Your task to perform on an android device: turn notification dots on Image 0: 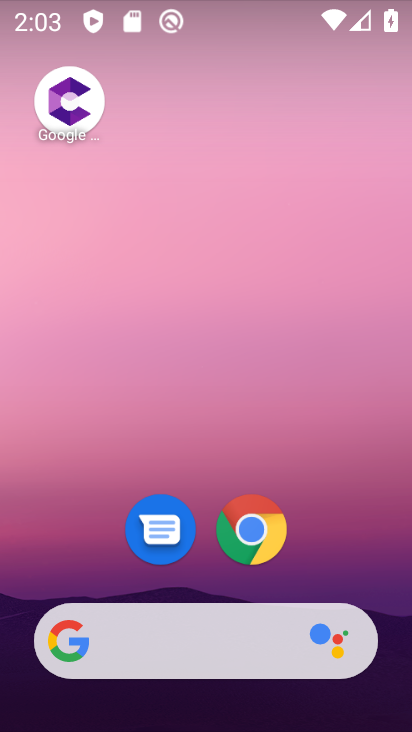
Step 0: drag from (221, 642) to (357, 167)
Your task to perform on an android device: turn notification dots on Image 1: 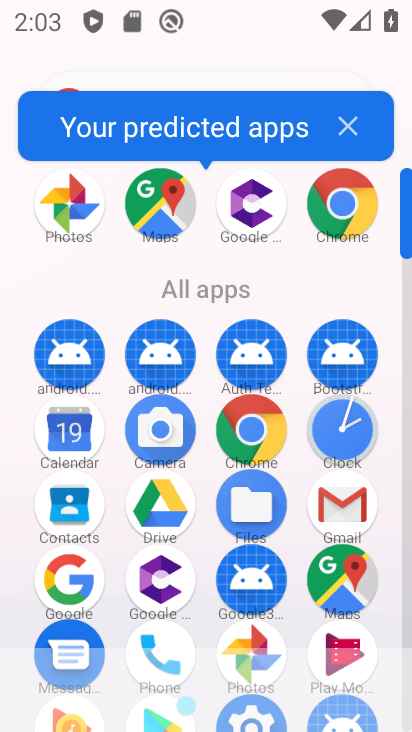
Step 1: drag from (200, 635) to (349, 210)
Your task to perform on an android device: turn notification dots on Image 2: 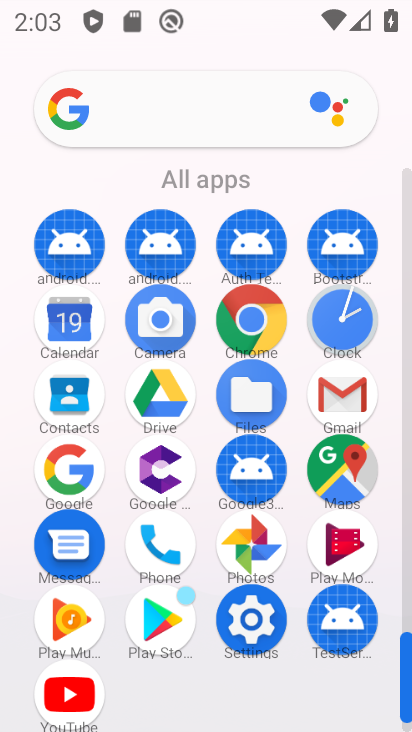
Step 2: click (250, 633)
Your task to perform on an android device: turn notification dots on Image 3: 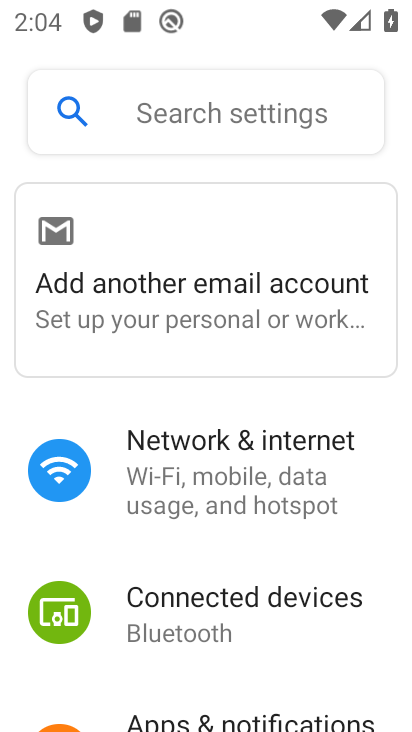
Step 3: drag from (188, 669) to (355, 247)
Your task to perform on an android device: turn notification dots on Image 4: 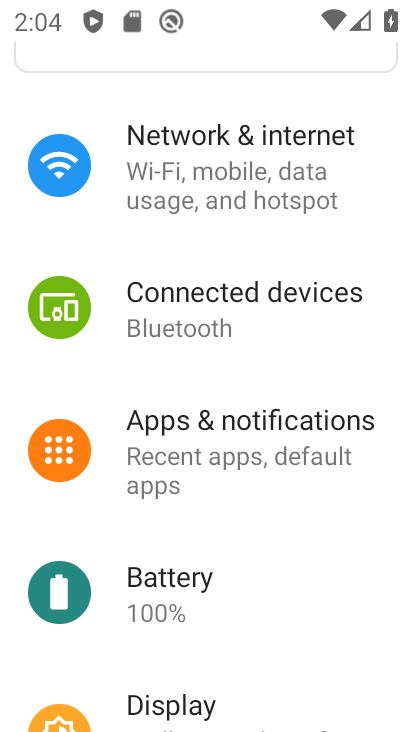
Step 4: click (273, 438)
Your task to perform on an android device: turn notification dots on Image 5: 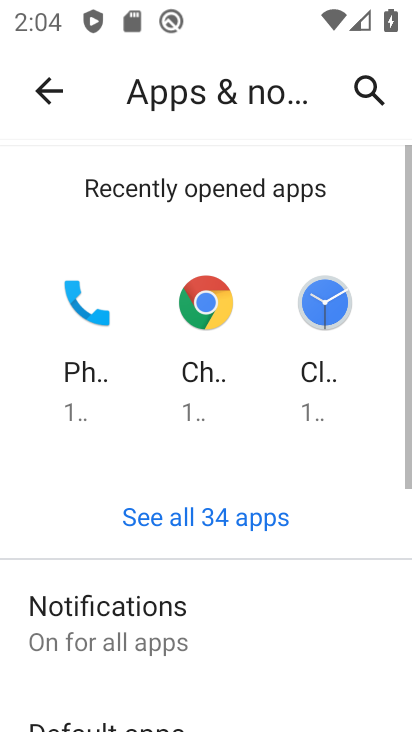
Step 5: drag from (210, 594) to (331, 287)
Your task to perform on an android device: turn notification dots on Image 6: 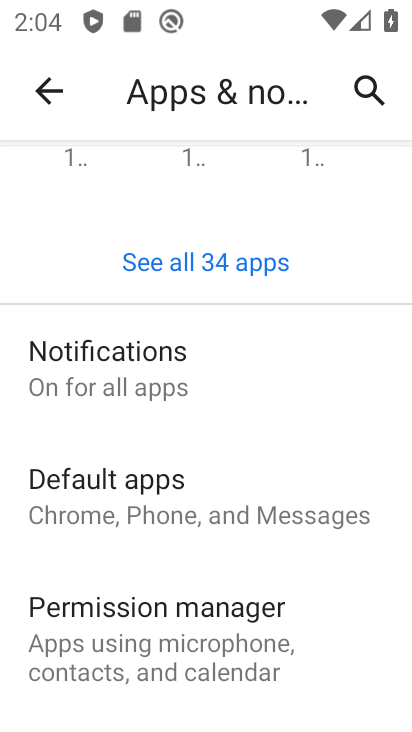
Step 6: click (167, 371)
Your task to perform on an android device: turn notification dots on Image 7: 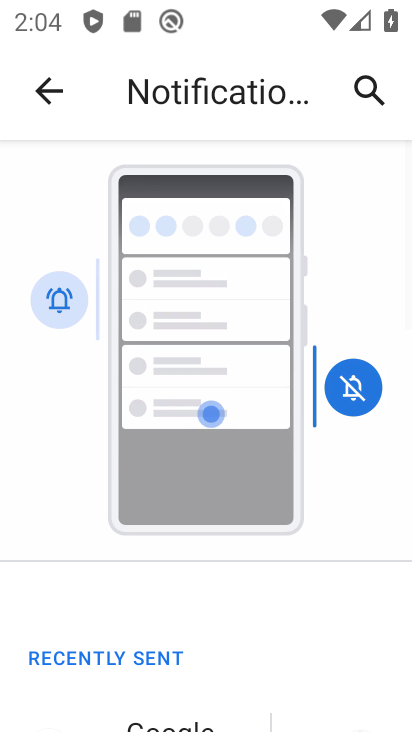
Step 7: drag from (219, 645) to (364, 113)
Your task to perform on an android device: turn notification dots on Image 8: 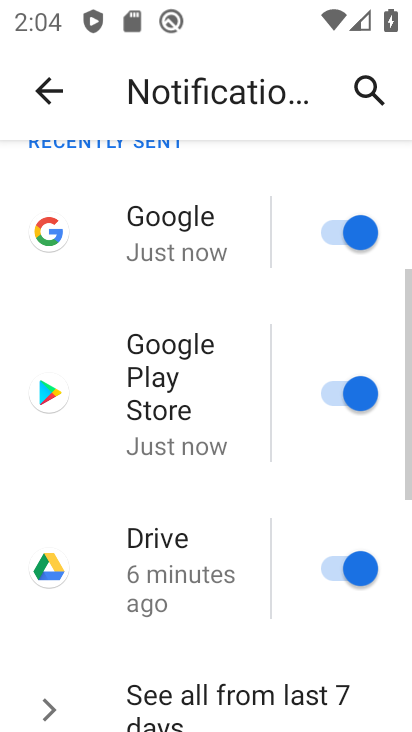
Step 8: drag from (258, 611) to (400, 109)
Your task to perform on an android device: turn notification dots on Image 9: 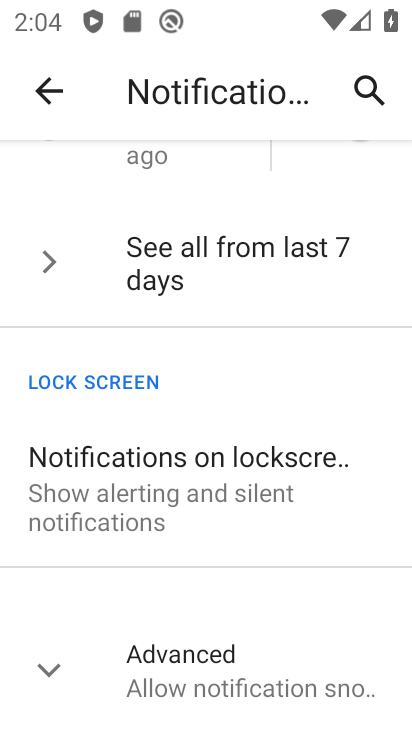
Step 9: drag from (231, 593) to (352, 220)
Your task to perform on an android device: turn notification dots on Image 10: 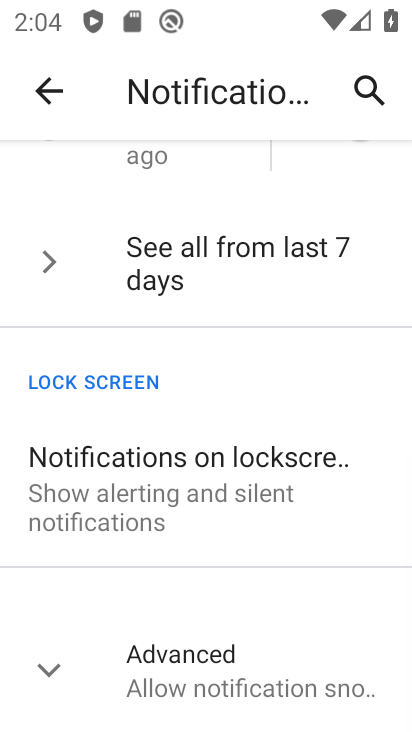
Step 10: click (177, 663)
Your task to perform on an android device: turn notification dots on Image 11: 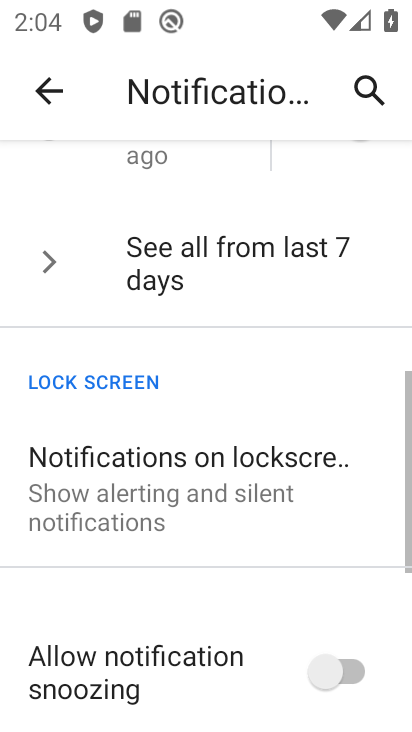
Step 11: task complete